Your task to perform on an android device: turn off picture-in-picture Image 0: 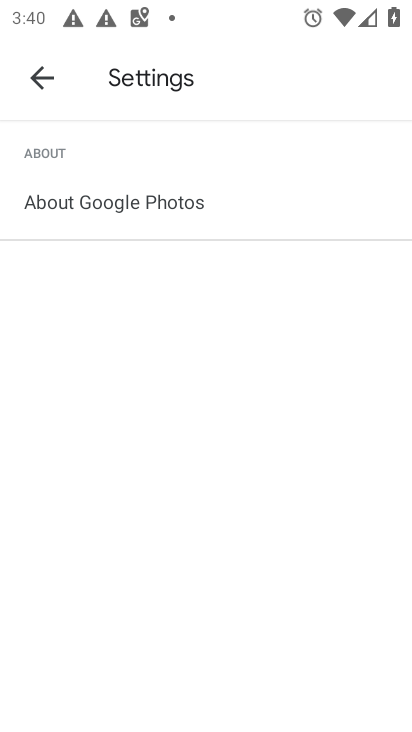
Step 0: press home button
Your task to perform on an android device: turn off picture-in-picture Image 1: 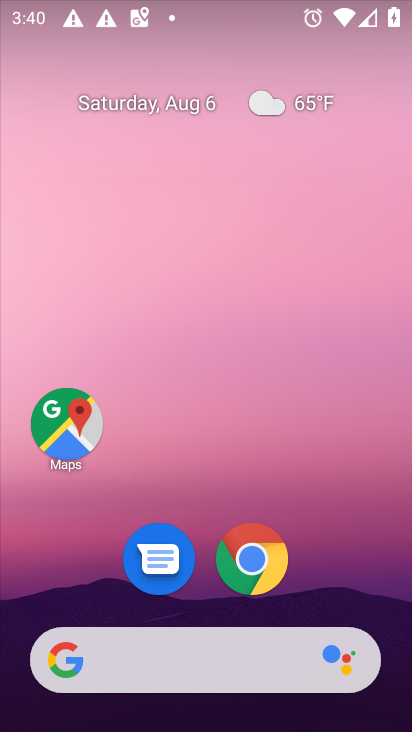
Step 1: click (259, 550)
Your task to perform on an android device: turn off picture-in-picture Image 2: 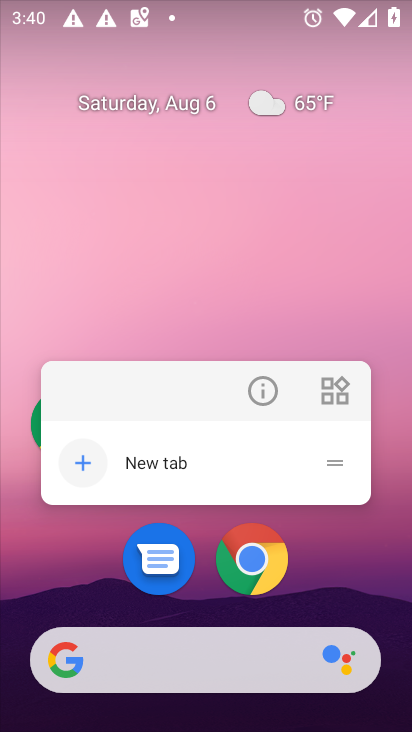
Step 2: click (258, 393)
Your task to perform on an android device: turn off picture-in-picture Image 3: 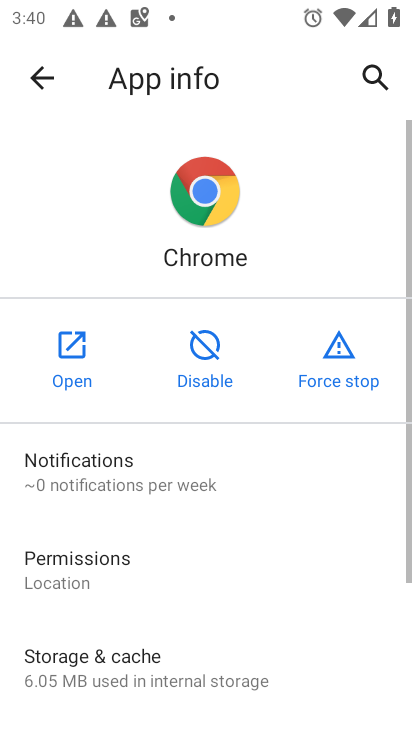
Step 3: drag from (218, 602) to (258, 121)
Your task to perform on an android device: turn off picture-in-picture Image 4: 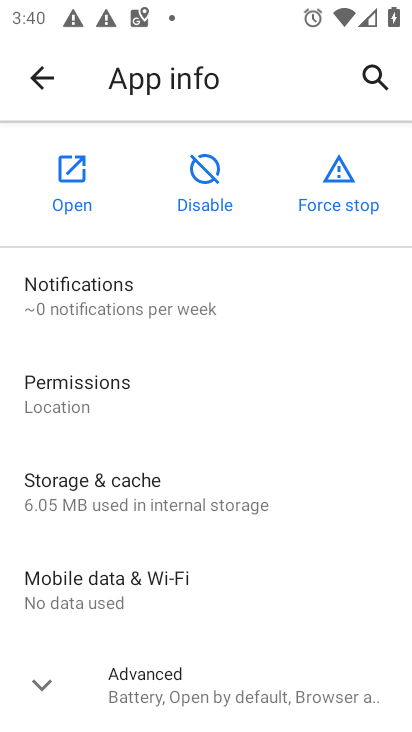
Step 4: click (41, 673)
Your task to perform on an android device: turn off picture-in-picture Image 5: 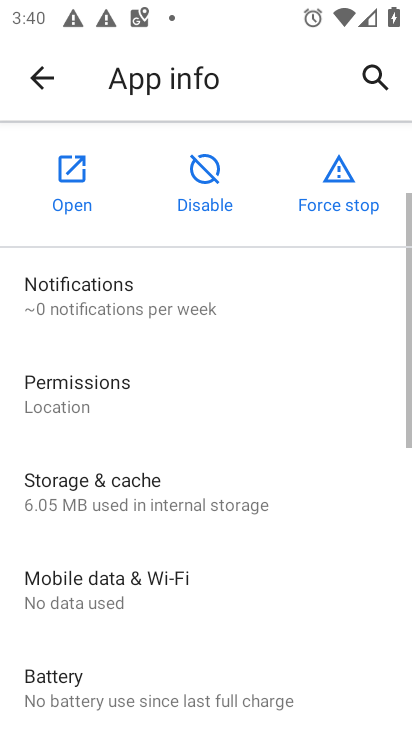
Step 5: drag from (206, 566) to (240, 88)
Your task to perform on an android device: turn off picture-in-picture Image 6: 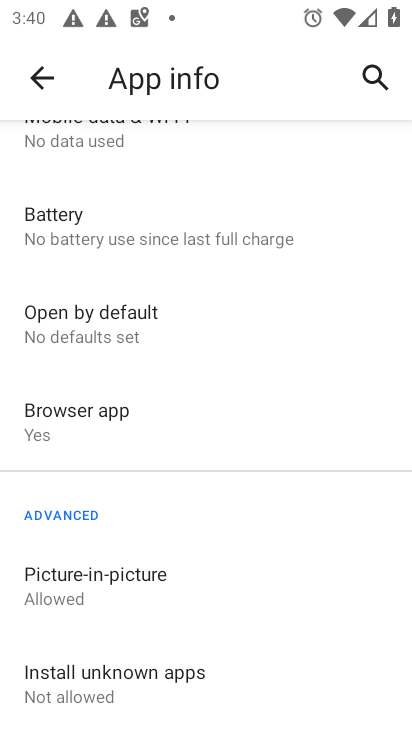
Step 6: click (135, 578)
Your task to perform on an android device: turn off picture-in-picture Image 7: 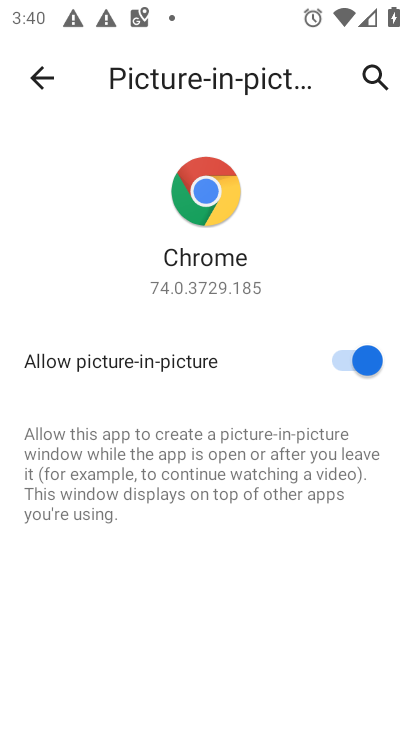
Step 7: click (359, 361)
Your task to perform on an android device: turn off picture-in-picture Image 8: 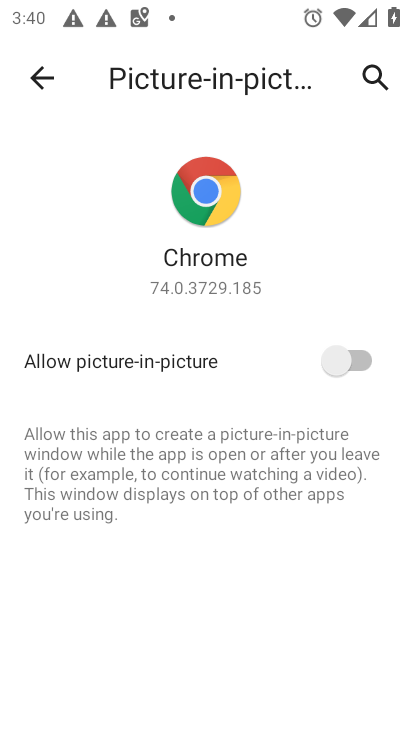
Step 8: task complete